Your task to perform on an android device: Open the stopwatch Image 0: 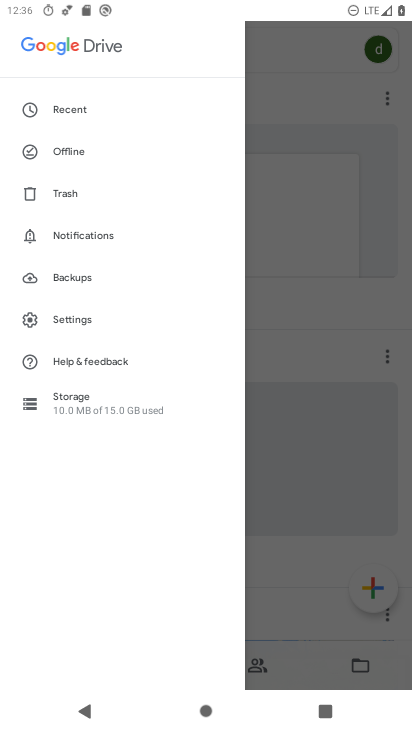
Step 0: press home button
Your task to perform on an android device: Open the stopwatch Image 1: 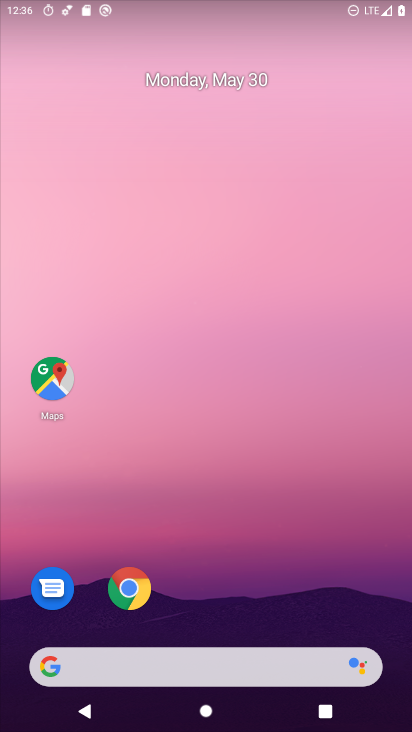
Step 1: drag from (342, 556) to (270, 92)
Your task to perform on an android device: Open the stopwatch Image 2: 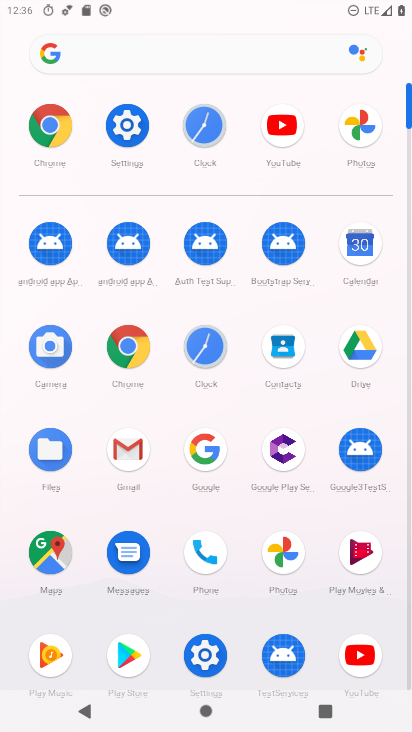
Step 2: click (213, 354)
Your task to perform on an android device: Open the stopwatch Image 3: 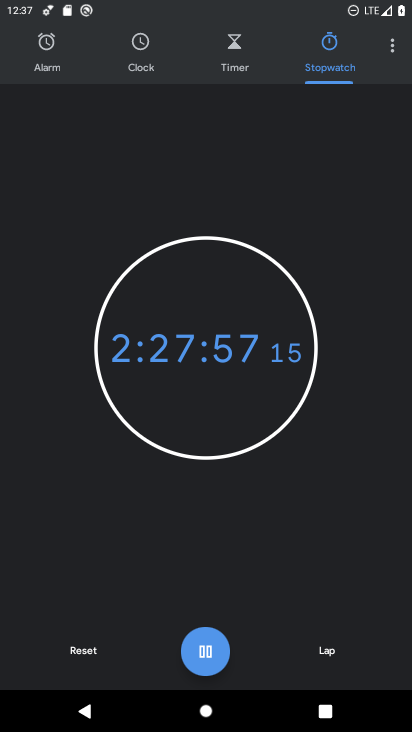
Step 3: click (203, 656)
Your task to perform on an android device: Open the stopwatch Image 4: 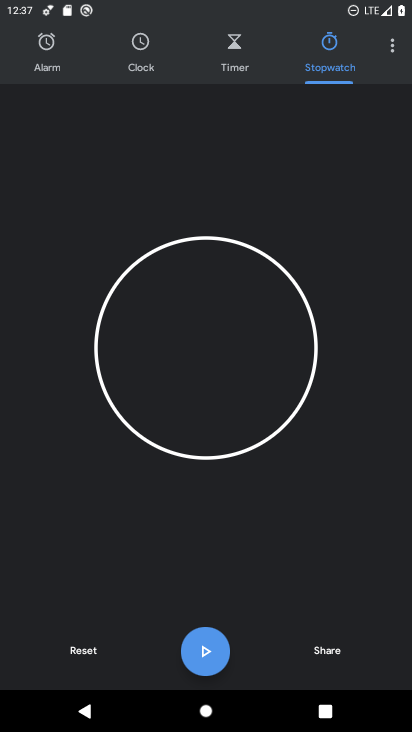
Step 4: task complete